Your task to perform on an android device: Open Reddit.com Image 0: 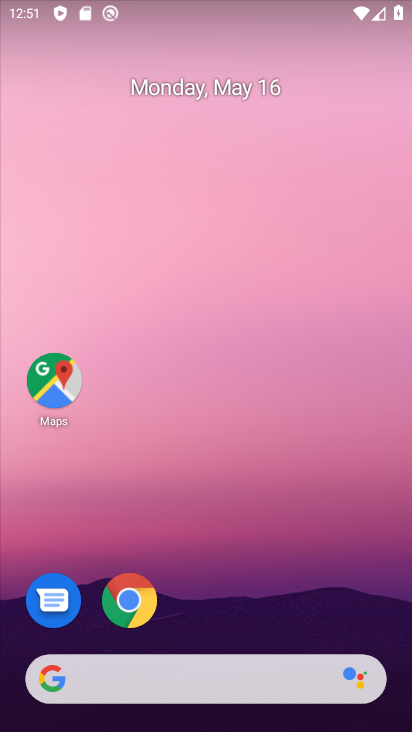
Step 0: drag from (338, 532) to (339, 207)
Your task to perform on an android device: Open Reddit.com Image 1: 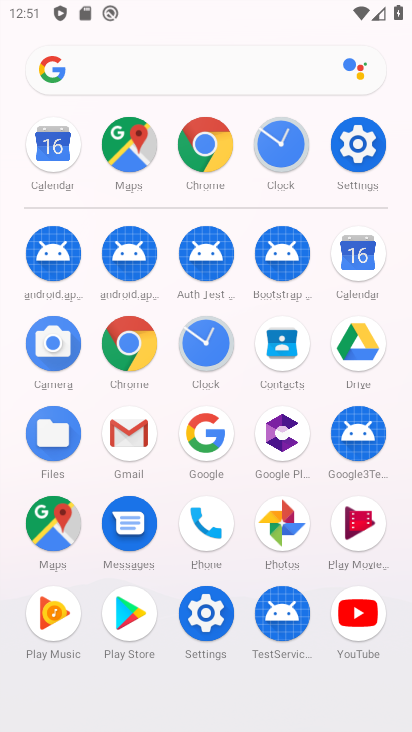
Step 1: click (195, 141)
Your task to perform on an android device: Open Reddit.com Image 2: 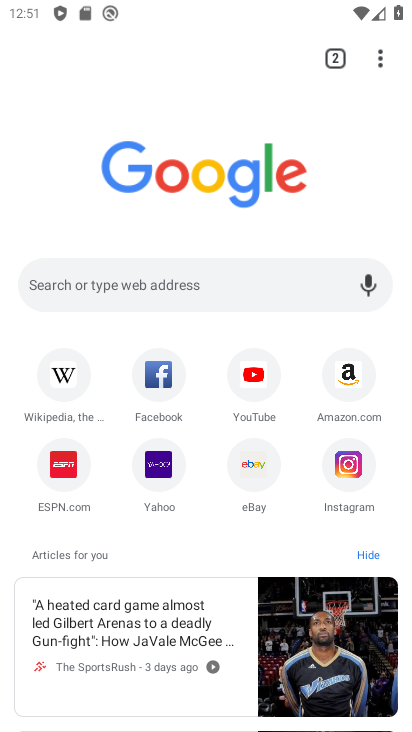
Step 2: click (182, 285)
Your task to perform on an android device: Open Reddit.com Image 3: 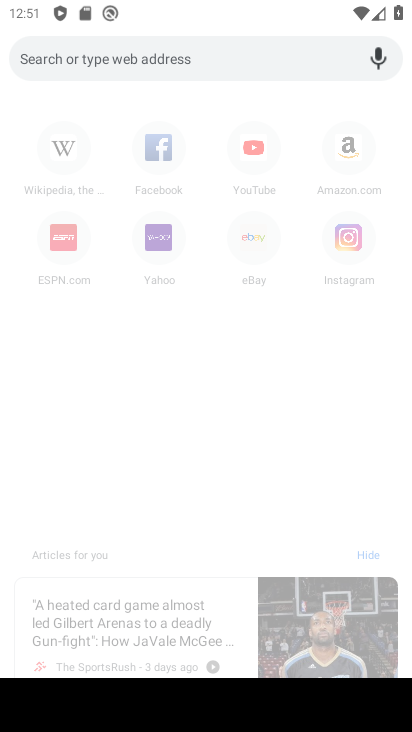
Step 3: click (215, 60)
Your task to perform on an android device: Open Reddit.com Image 4: 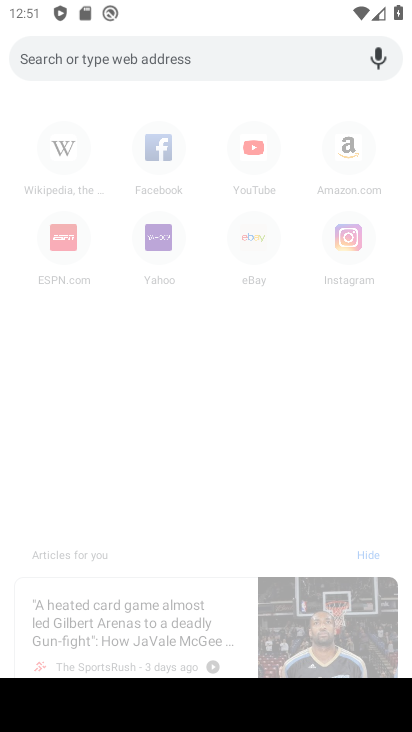
Step 4: type "reddit"
Your task to perform on an android device: Open Reddit.com Image 5: 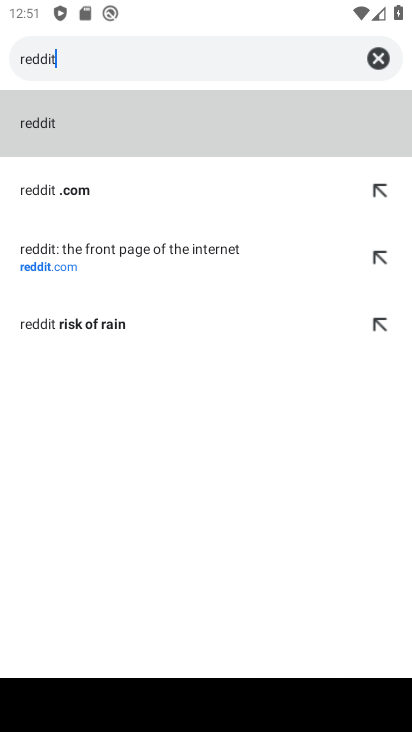
Step 5: click (73, 121)
Your task to perform on an android device: Open Reddit.com Image 6: 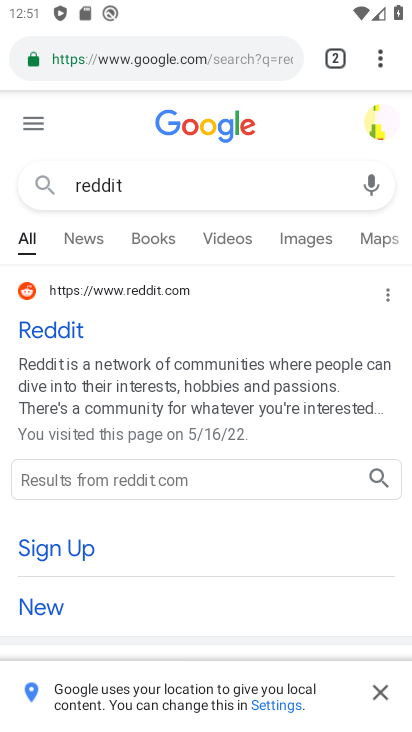
Step 6: task complete